Your task to perform on an android device: Open calendar and show me the third week of next month Image 0: 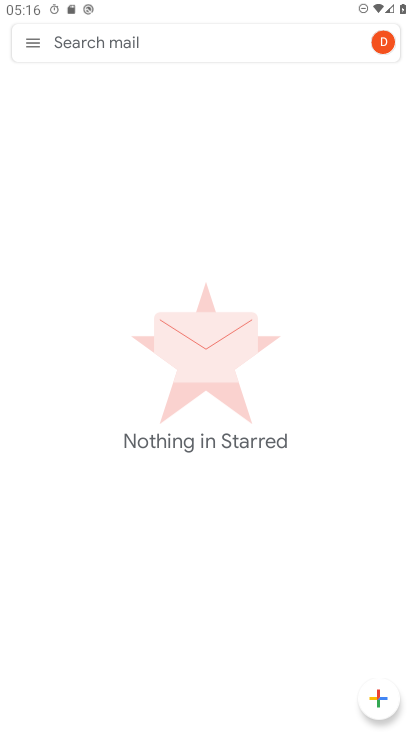
Step 0: press home button
Your task to perform on an android device: Open calendar and show me the third week of next month Image 1: 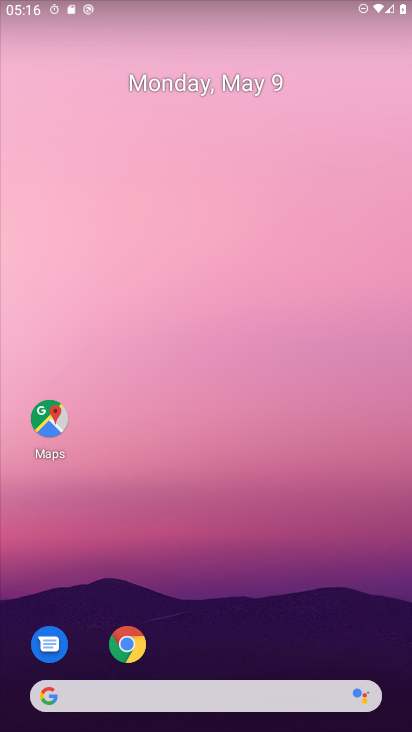
Step 1: drag from (192, 627) to (180, 32)
Your task to perform on an android device: Open calendar and show me the third week of next month Image 2: 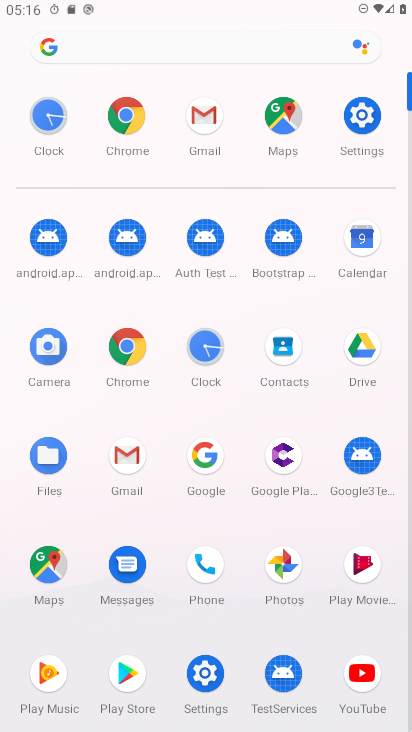
Step 2: click (363, 236)
Your task to perform on an android device: Open calendar and show me the third week of next month Image 3: 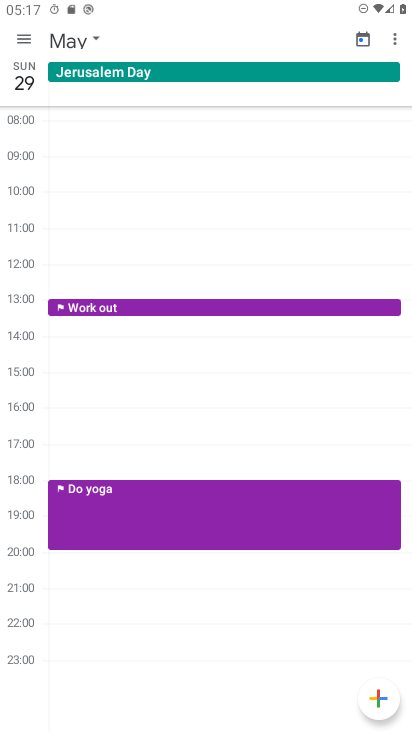
Step 3: click (89, 39)
Your task to perform on an android device: Open calendar and show me the third week of next month Image 4: 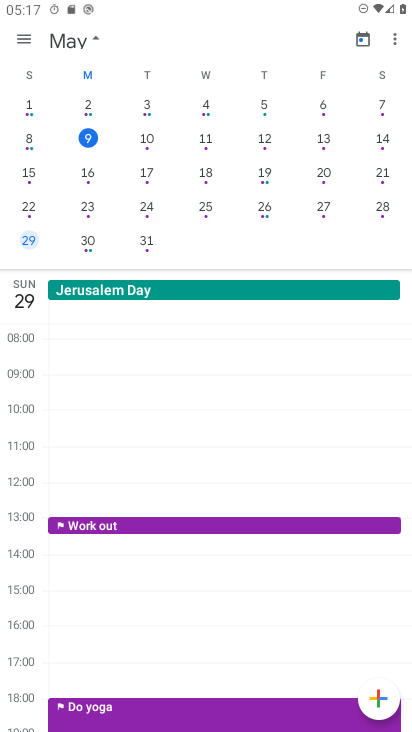
Step 4: drag from (364, 154) to (11, 150)
Your task to perform on an android device: Open calendar and show me the third week of next month Image 5: 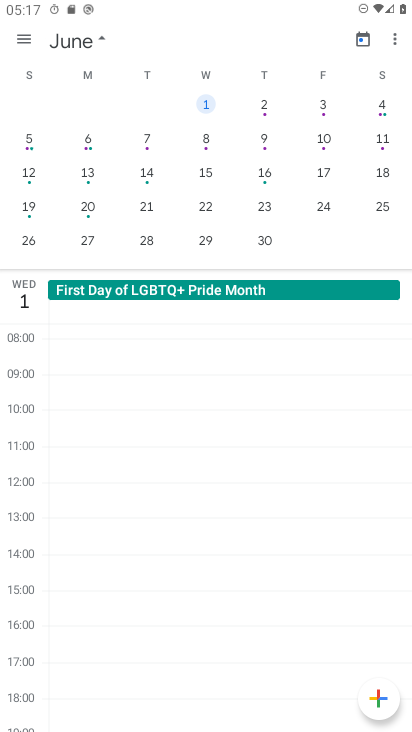
Step 5: click (30, 215)
Your task to perform on an android device: Open calendar and show me the third week of next month Image 6: 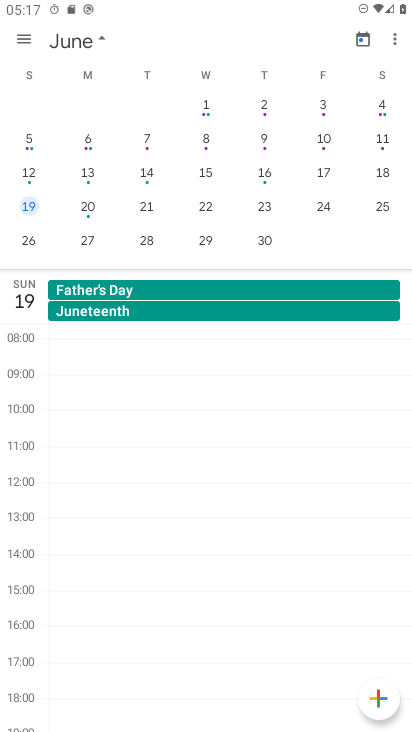
Step 6: click (89, 209)
Your task to perform on an android device: Open calendar and show me the third week of next month Image 7: 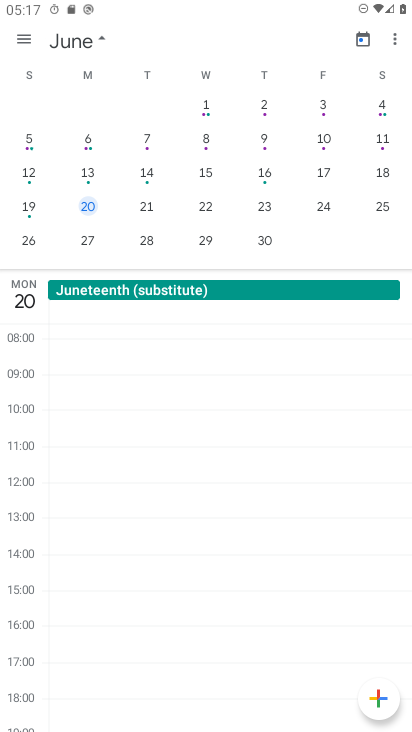
Step 7: click (19, 38)
Your task to perform on an android device: Open calendar and show me the third week of next month Image 8: 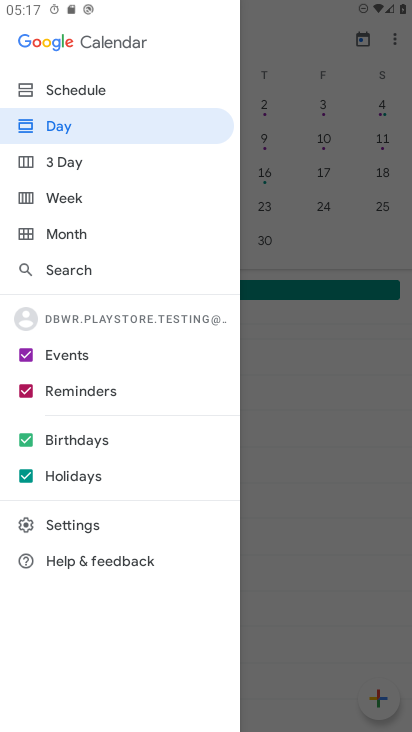
Step 8: click (63, 189)
Your task to perform on an android device: Open calendar and show me the third week of next month Image 9: 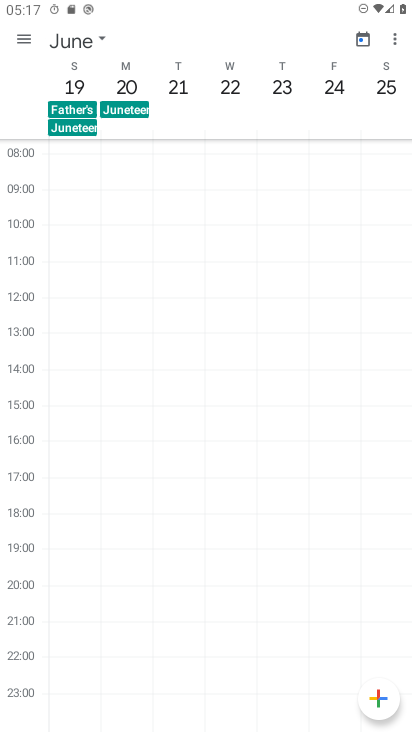
Step 9: task complete